Your task to perform on an android device: turn off data saver in the chrome app Image 0: 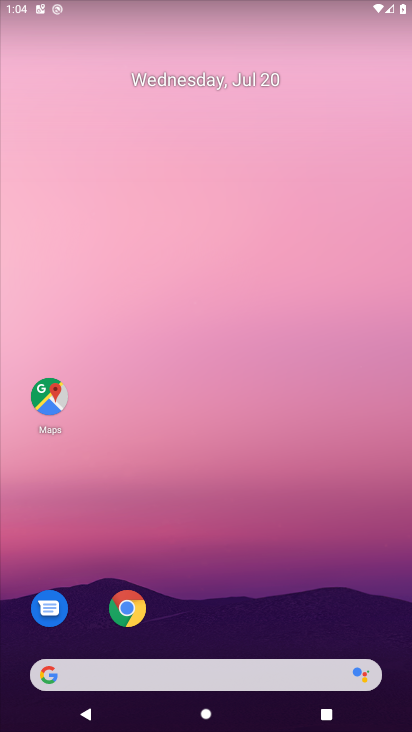
Step 0: click (125, 610)
Your task to perform on an android device: turn off data saver in the chrome app Image 1: 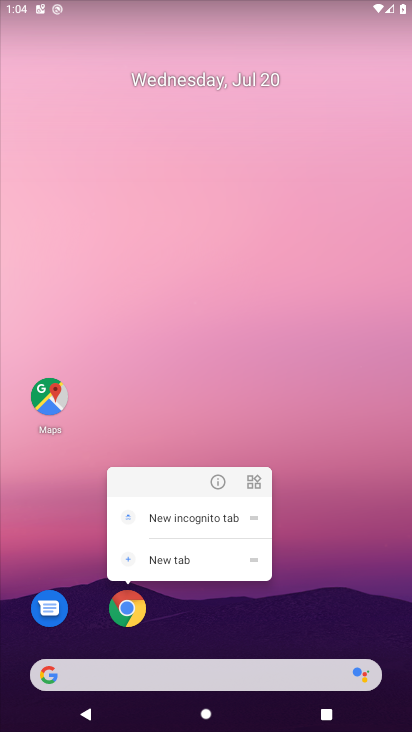
Step 1: click (125, 610)
Your task to perform on an android device: turn off data saver in the chrome app Image 2: 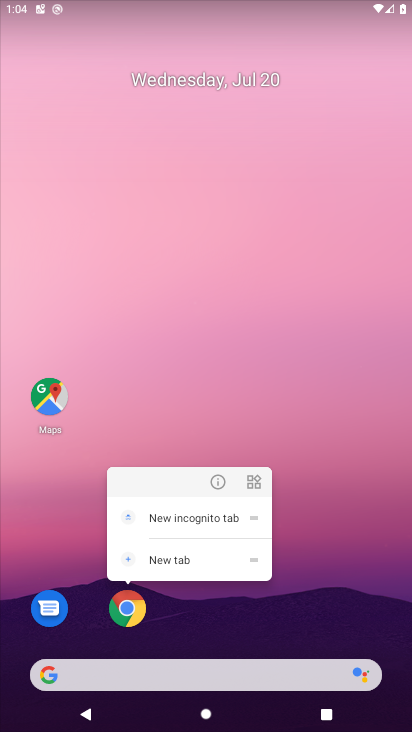
Step 2: click (132, 612)
Your task to perform on an android device: turn off data saver in the chrome app Image 3: 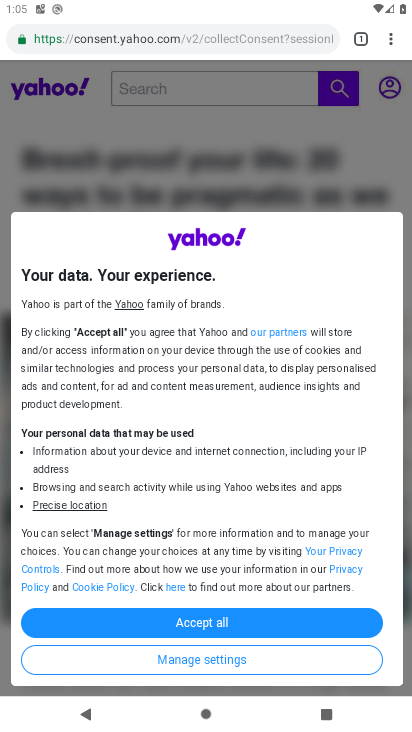
Step 3: click (384, 33)
Your task to perform on an android device: turn off data saver in the chrome app Image 4: 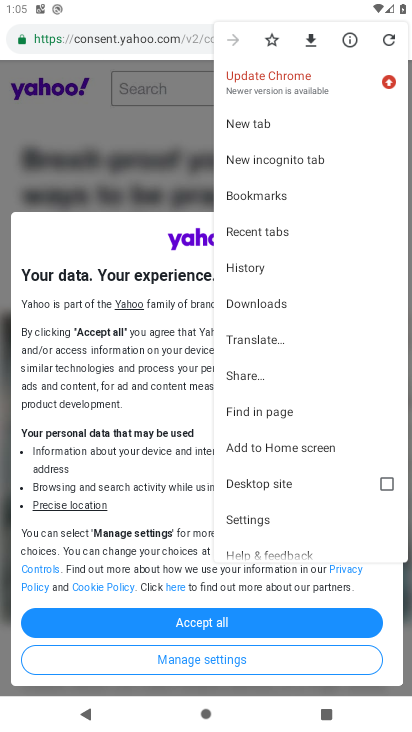
Step 4: click (266, 516)
Your task to perform on an android device: turn off data saver in the chrome app Image 5: 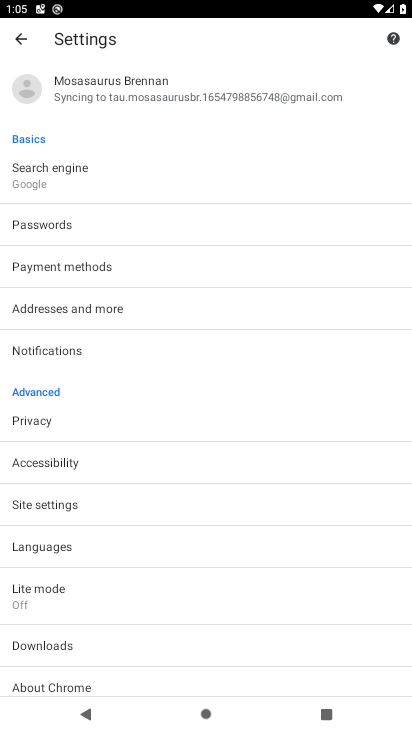
Step 5: click (22, 595)
Your task to perform on an android device: turn off data saver in the chrome app Image 6: 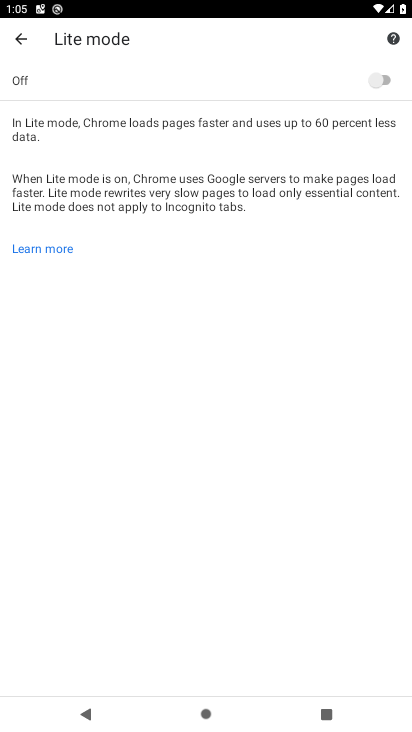
Step 6: task complete